Your task to perform on an android device: Go to wifi settings Image 0: 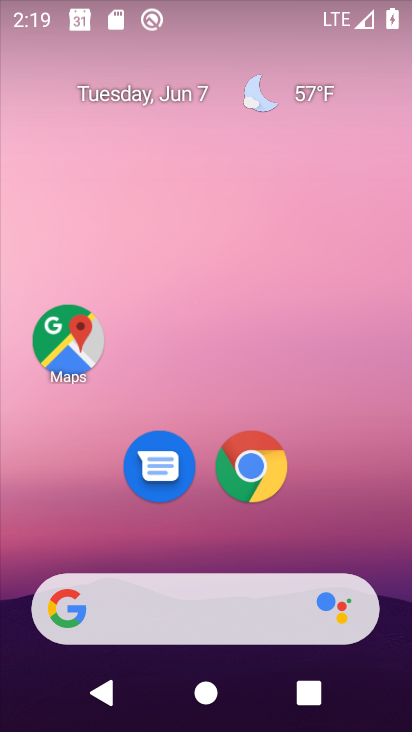
Step 0: drag from (71, 11) to (152, 566)
Your task to perform on an android device: Go to wifi settings Image 1: 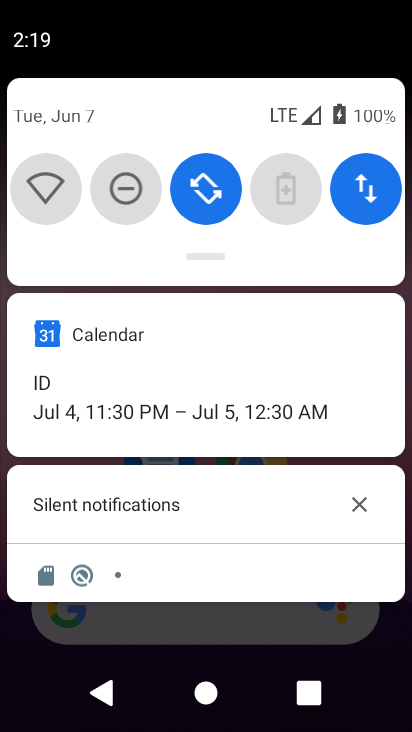
Step 1: click (54, 188)
Your task to perform on an android device: Go to wifi settings Image 2: 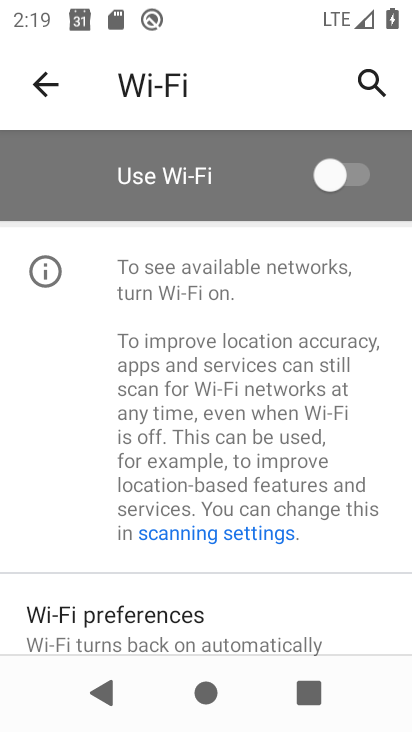
Step 2: task complete